Your task to perform on an android device: Do I have any events today? Image 0: 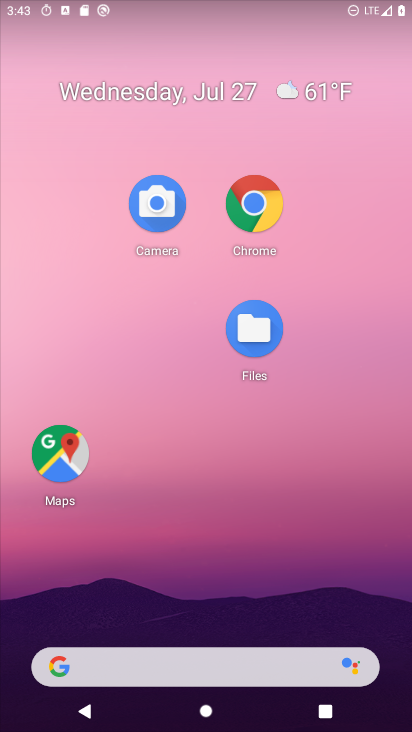
Step 0: drag from (211, 610) to (232, 196)
Your task to perform on an android device: Do I have any events today? Image 1: 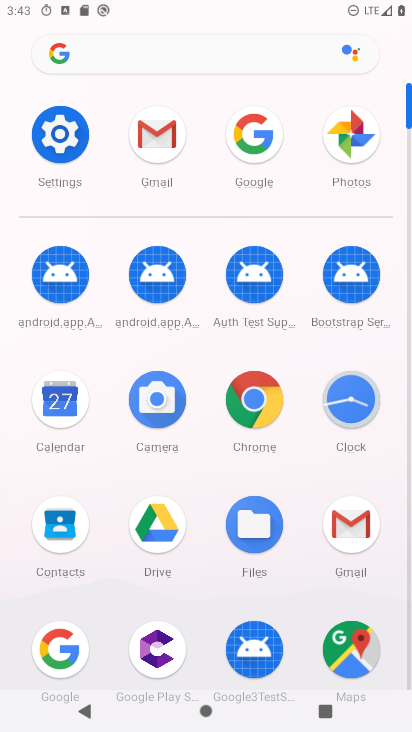
Step 1: click (72, 398)
Your task to perform on an android device: Do I have any events today? Image 2: 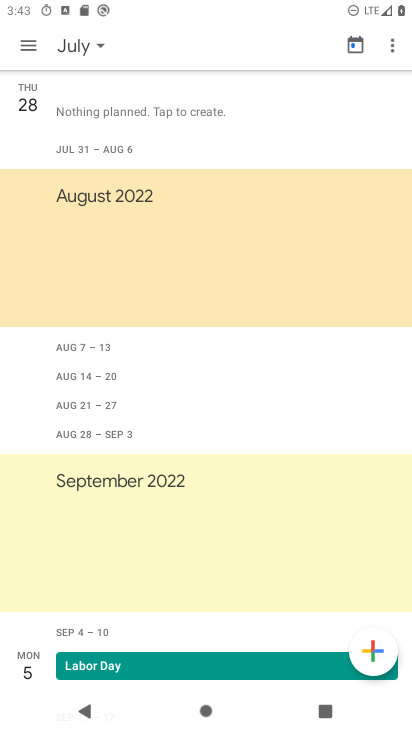
Step 2: click (87, 47)
Your task to perform on an android device: Do I have any events today? Image 3: 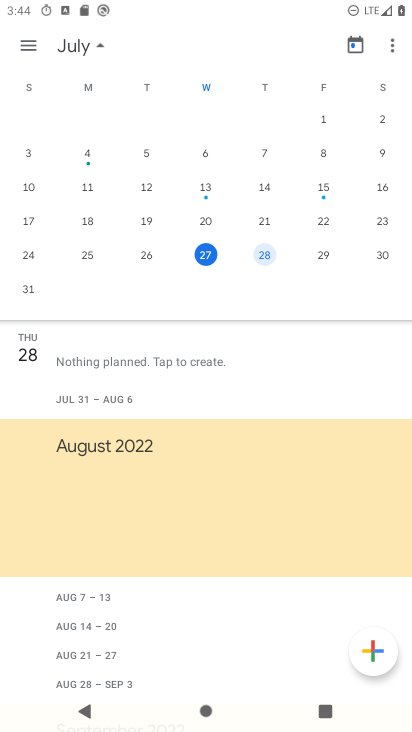
Step 3: task complete